Your task to perform on an android device: When is my next meeting? Image 0: 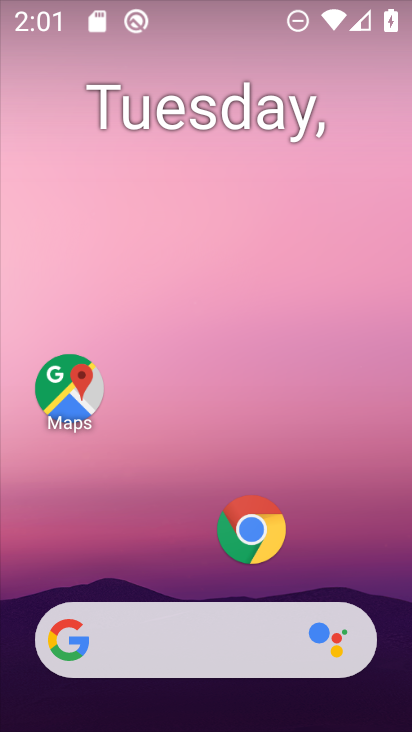
Step 0: press home button
Your task to perform on an android device: When is my next meeting? Image 1: 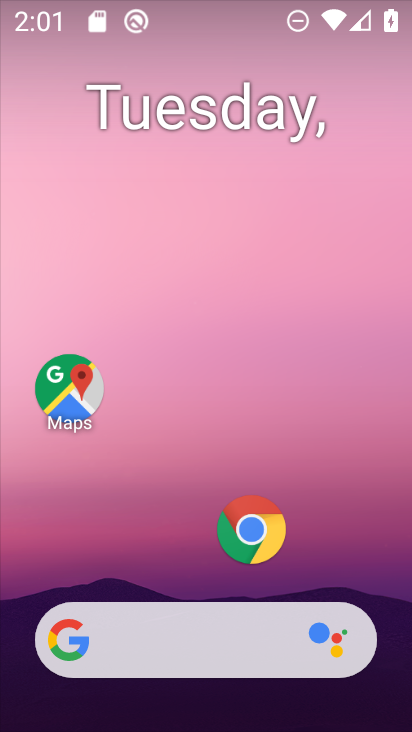
Step 1: drag from (245, 692) to (251, 185)
Your task to perform on an android device: When is my next meeting? Image 2: 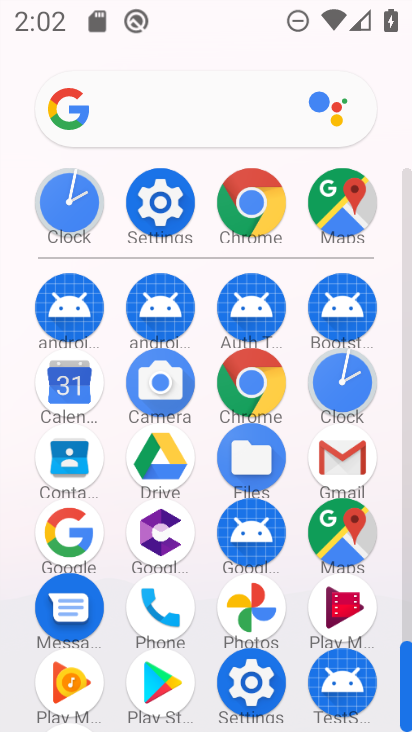
Step 2: click (75, 376)
Your task to perform on an android device: When is my next meeting? Image 3: 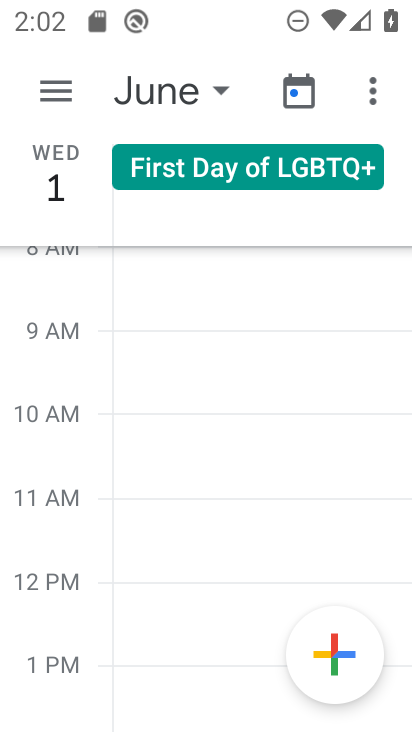
Step 3: click (50, 89)
Your task to perform on an android device: When is my next meeting? Image 4: 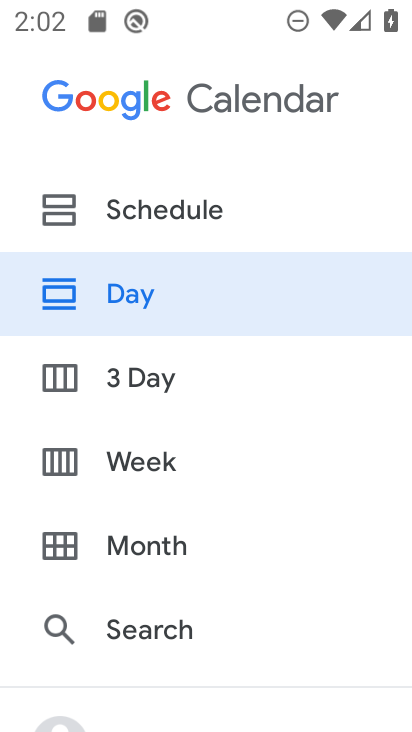
Step 4: click (130, 202)
Your task to perform on an android device: When is my next meeting? Image 5: 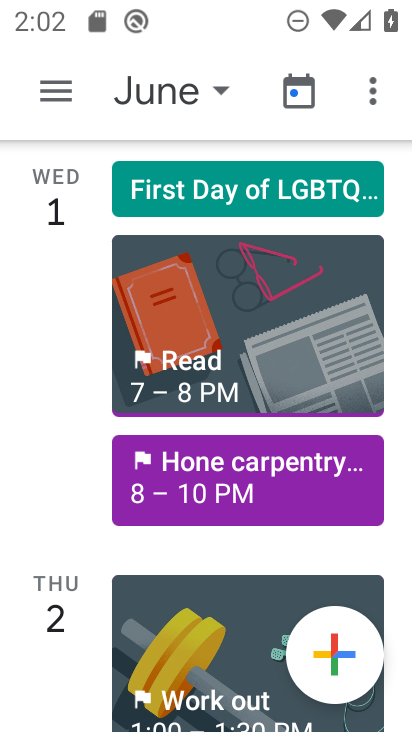
Step 5: task complete